Your task to perform on an android device: change the upload size in google photos Image 0: 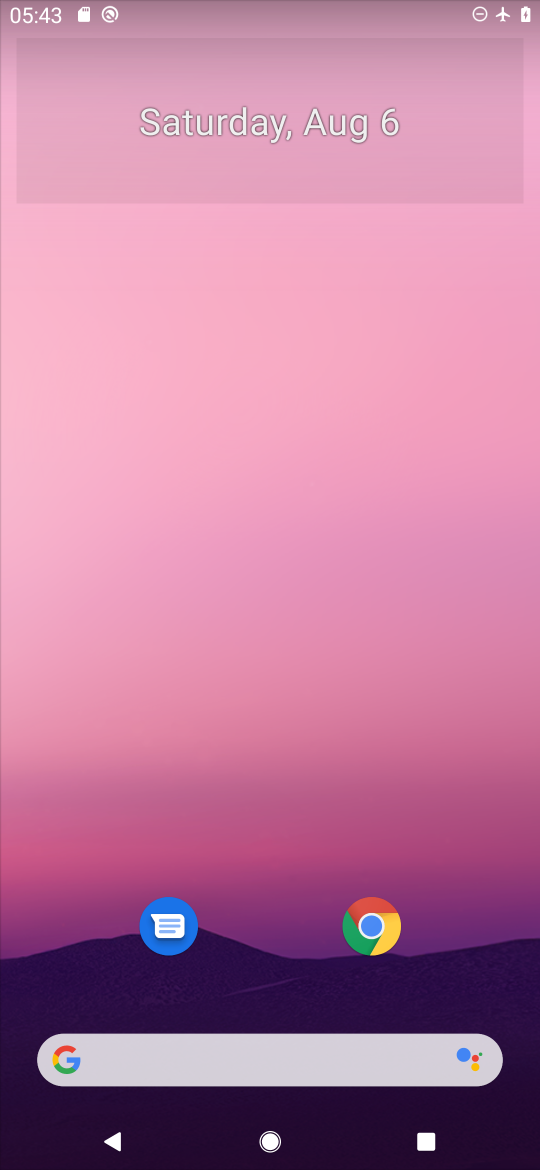
Step 0: drag from (260, 983) to (259, 294)
Your task to perform on an android device: change the upload size in google photos Image 1: 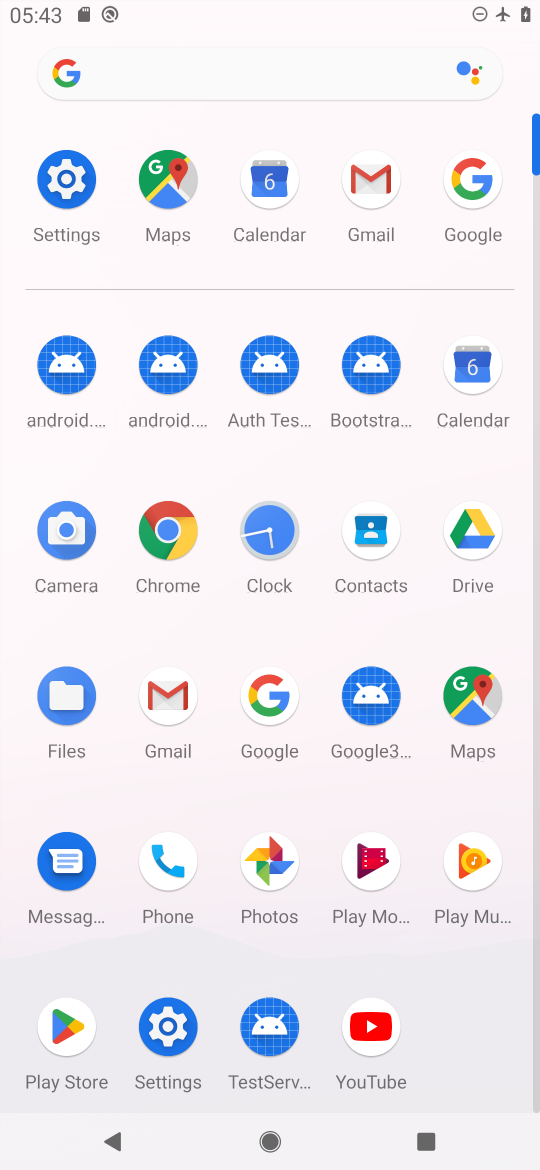
Step 1: click (274, 844)
Your task to perform on an android device: change the upload size in google photos Image 2: 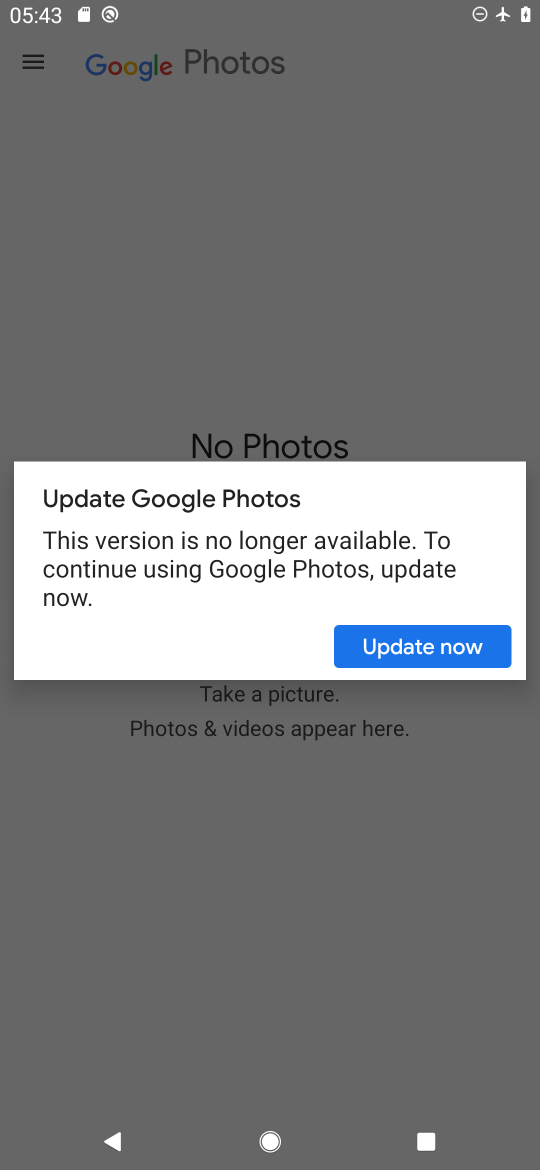
Step 2: click (411, 632)
Your task to perform on an android device: change the upload size in google photos Image 3: 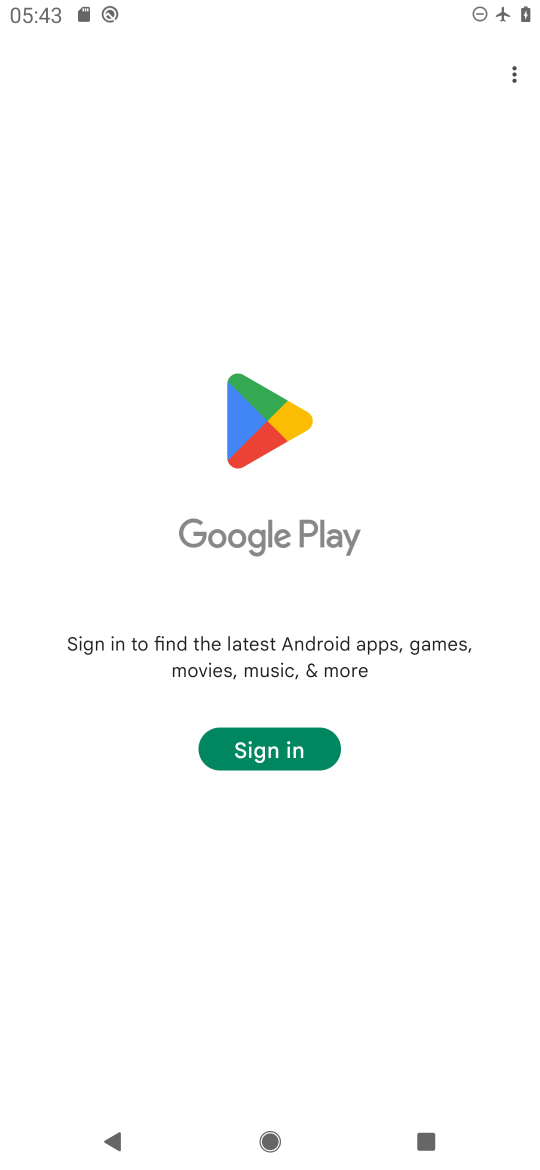
Step 3: press back button
Your task to perform on an android device: change the upload size in google photos Image 4: 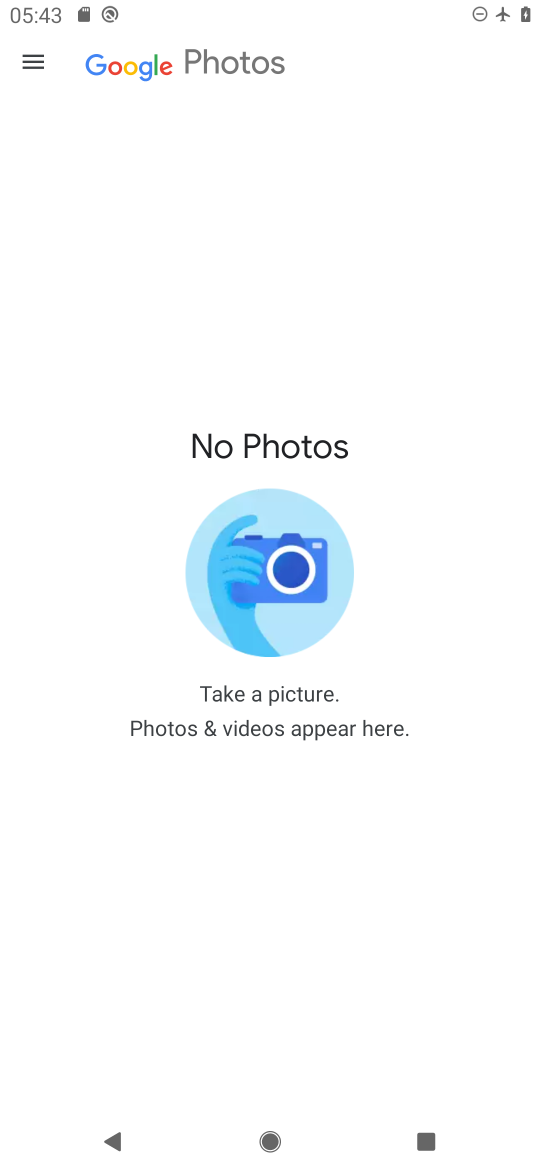
Step 4: click (47, 65)
Your task to perform on an android device: change the upload size in google photos Image 5: 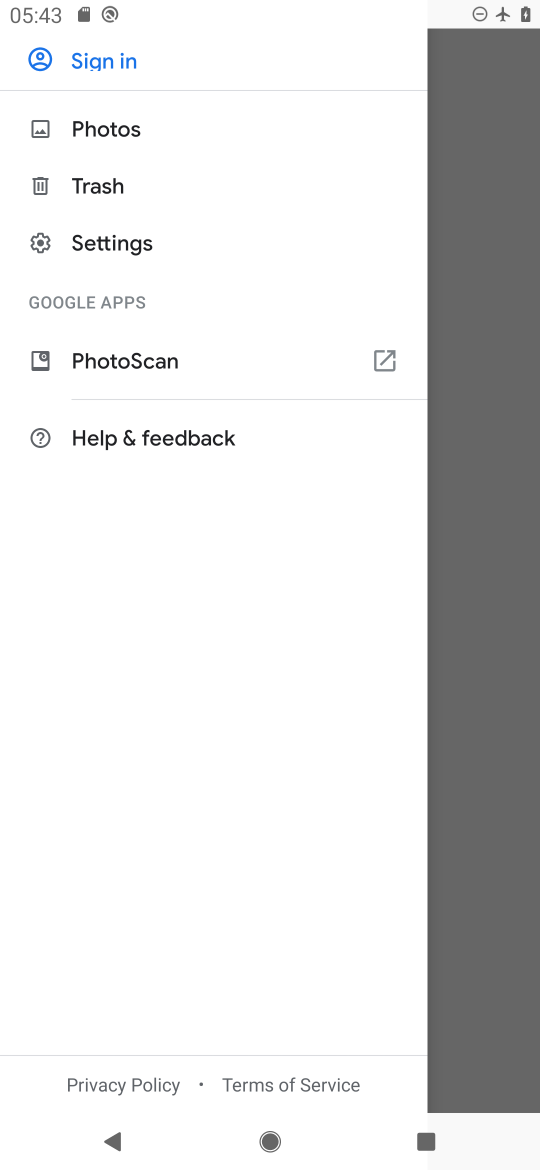
Step 5: click (81, 249)
Your task to perform on an android device: change the upload size in google photos Image 6: 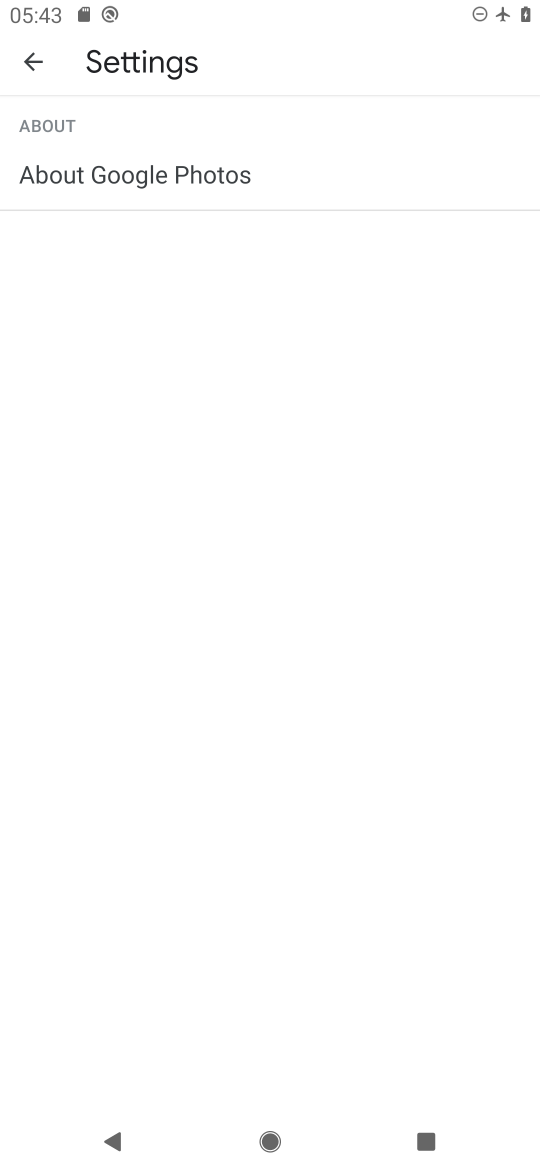
Step 6: task complete